Your task to perform on an android device: Empty the shopping cart on amazon. Search for "usb-c to usb-a" on amazon, select the first entry, and add it to the cart. Image 0: 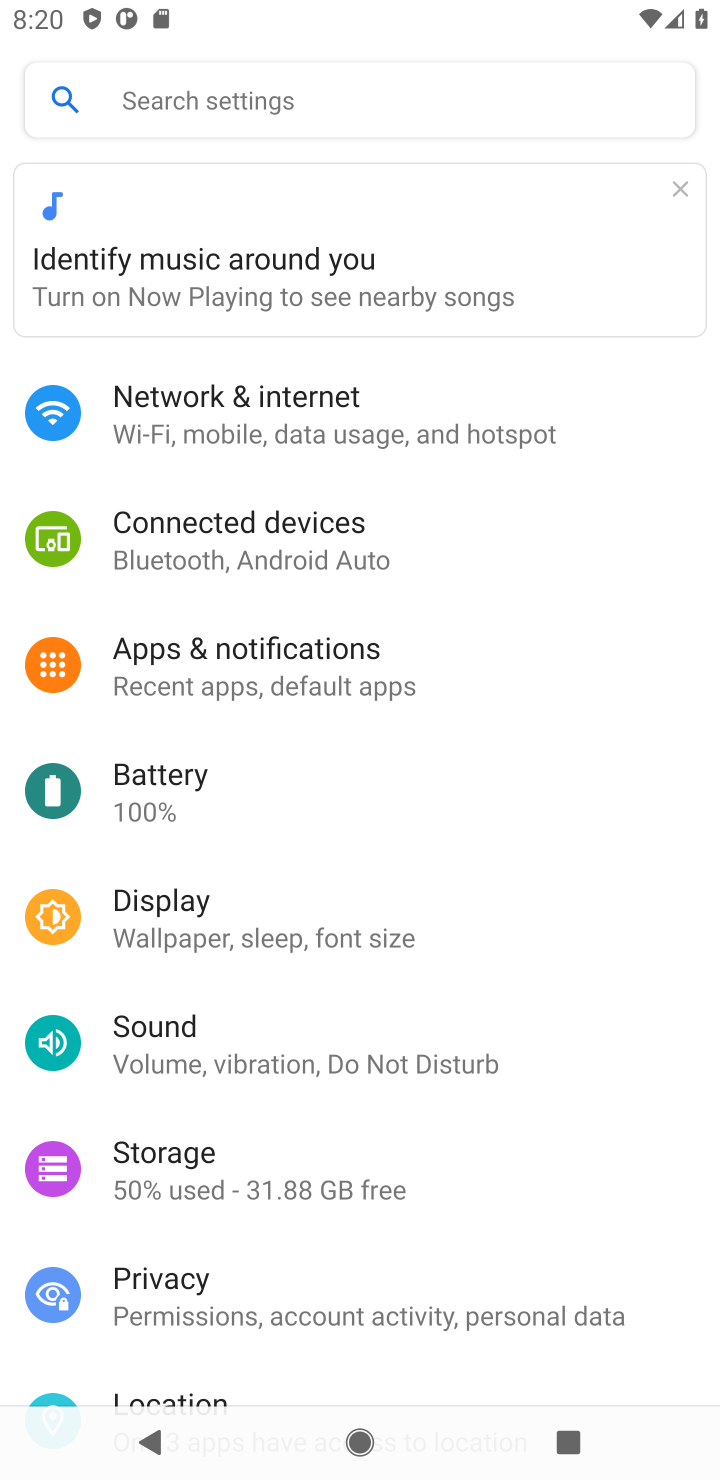
Step 0: press home button
Your task to perform on an android device: Empty the shopping cart on amazon. Search for "usb-c to usb-a" on amazon, select the first entry, and add it to the cart. Image 1: 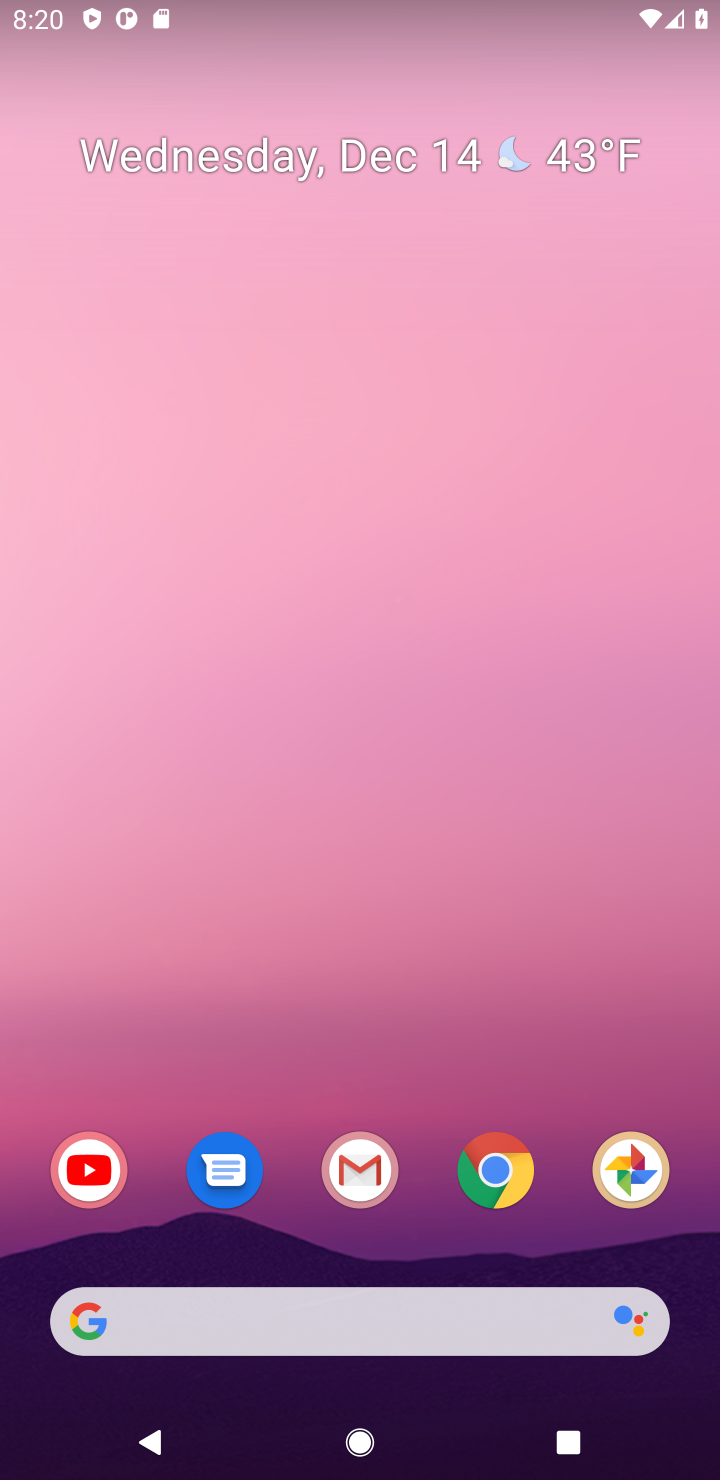
Step 1: click (491, 1178)
Your task to perform on an android device: Empty the shopping cart on amazon. Search for "usb-c to usb-a" on amazon, select the first entry, and add it to the cart. Image 2: 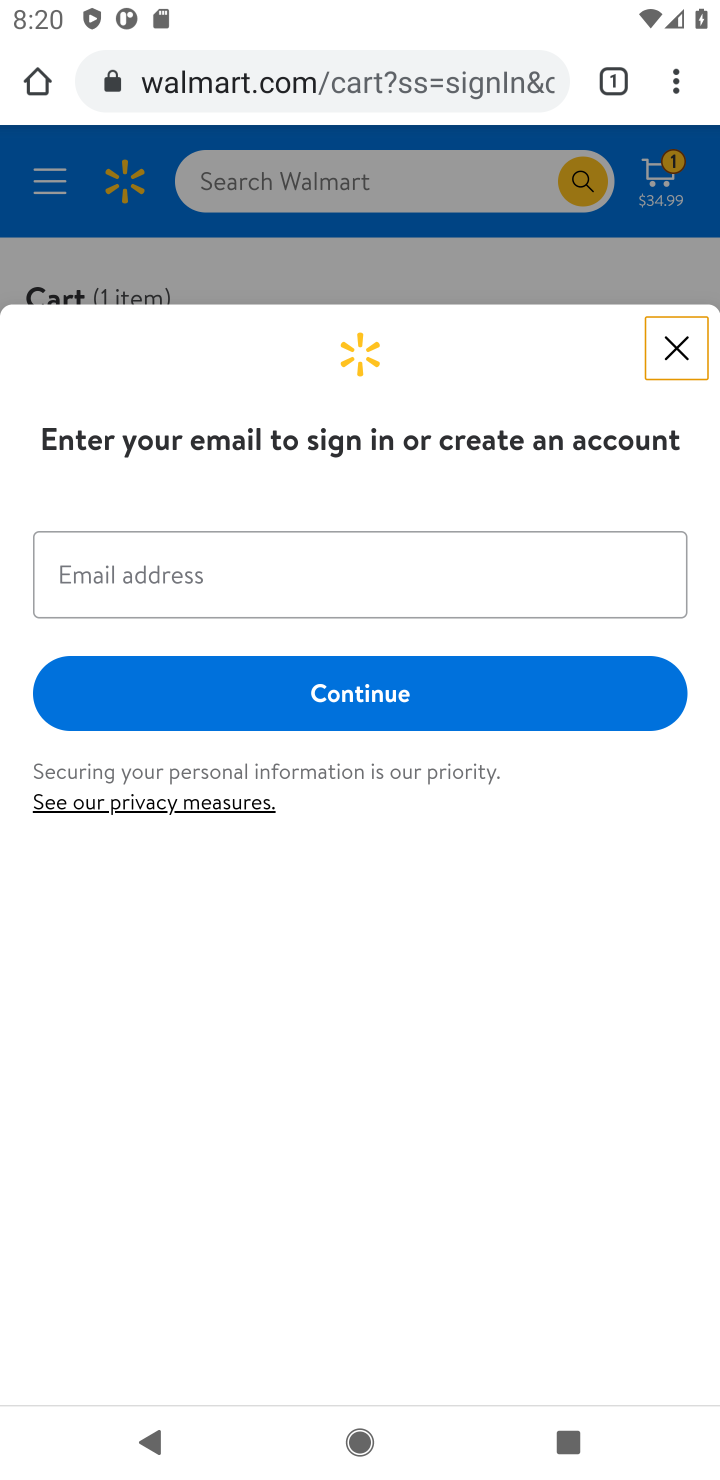
Step 2: click (314, 102)
Your task to perform on an android device: Empty the shopping cart on amazon. Search for "usb-c to usb-a" on amazon, select the first entry, and add it to the cart. Image 3: 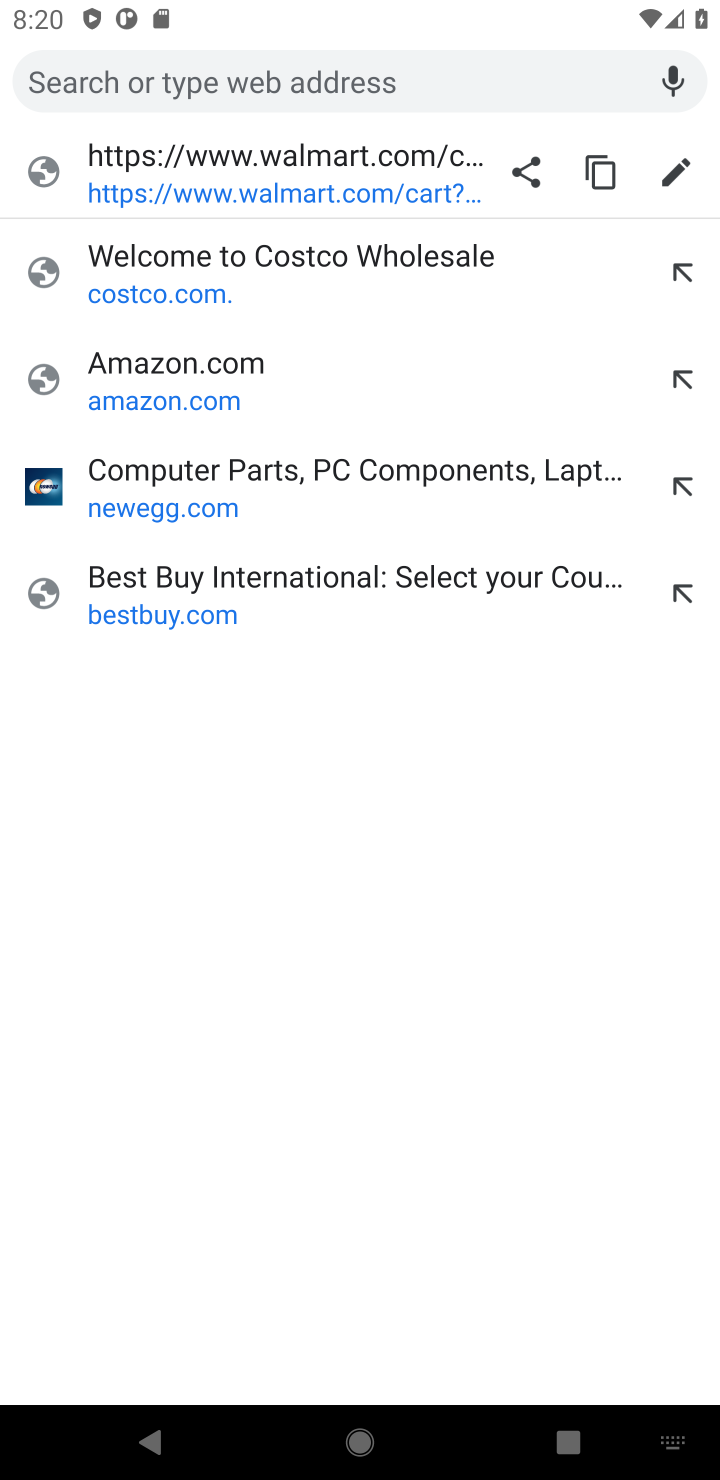
Step 3: click (229, 398)
Your task to perform on an android device: Empty the shopping cart on amazon. Search for "usb-c to usb-a" on amazon, select the first entry, and add it to the cart. Image 4: 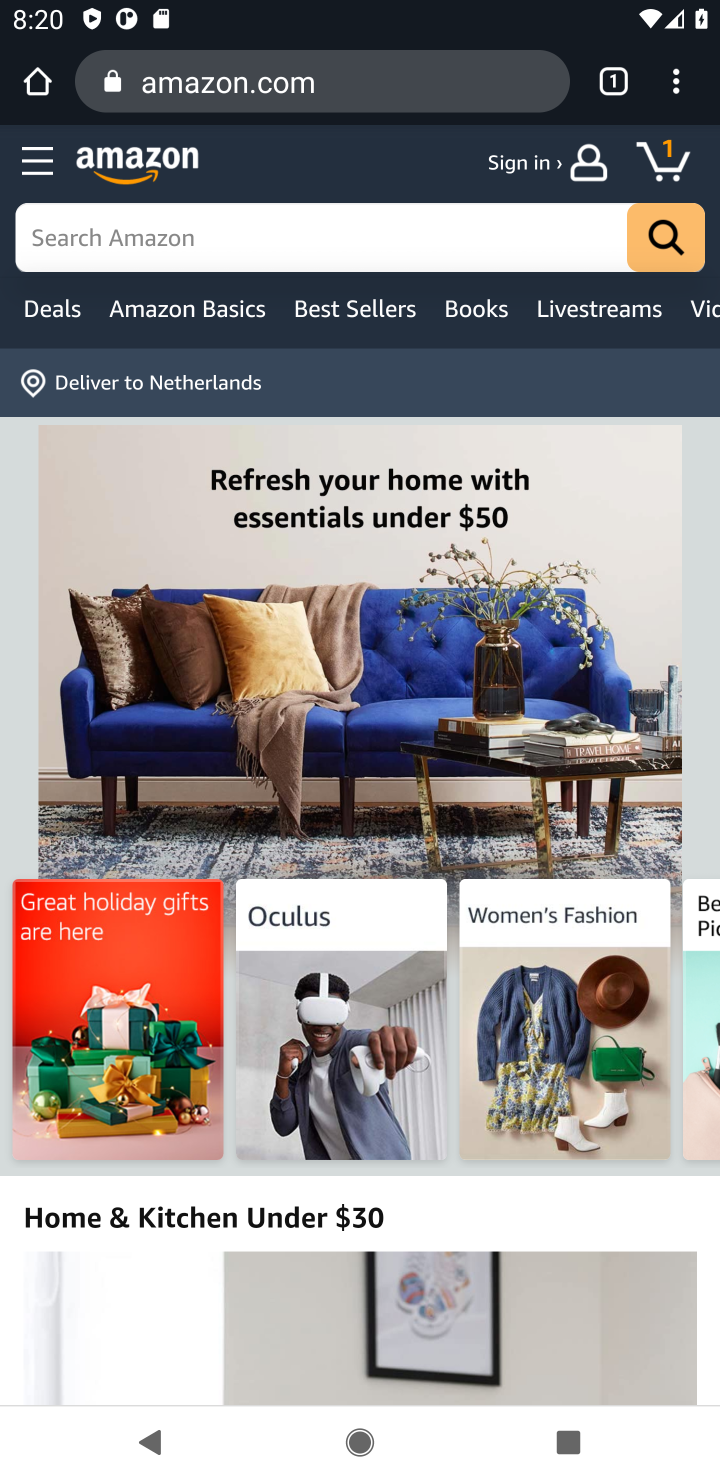
Step 4: click (671, 157)
Your task to perform on an android device: Empty the shopping cart on amazon. Search for "usb-c to usb-a" on amazon, select the first entry, and add it to the cart. Image 5: 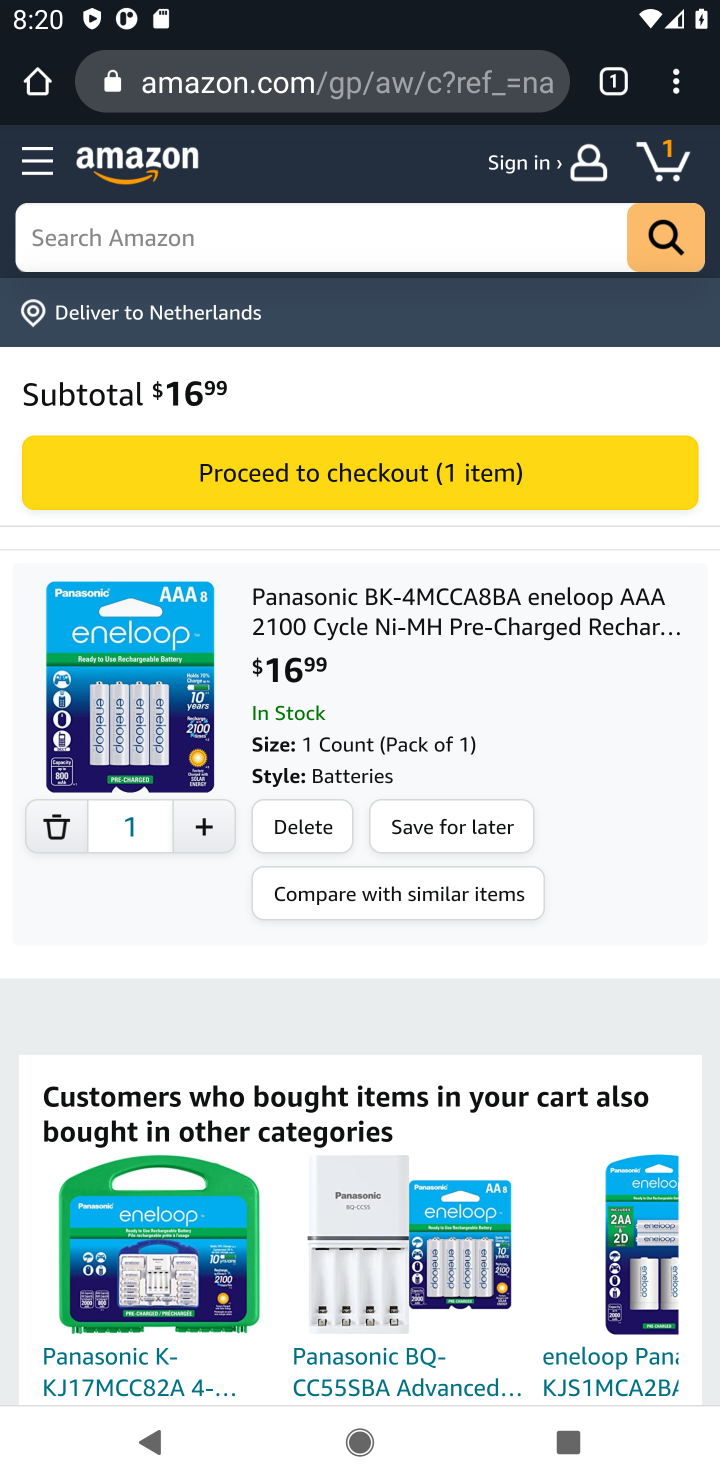
Step 5: click (53, 833)
Your task to perform on an android device: Empty the shopping cart on amazon. Search for "usb-c to usb-a" on amazon, select the first entry, and add it to the cart. Image 6: 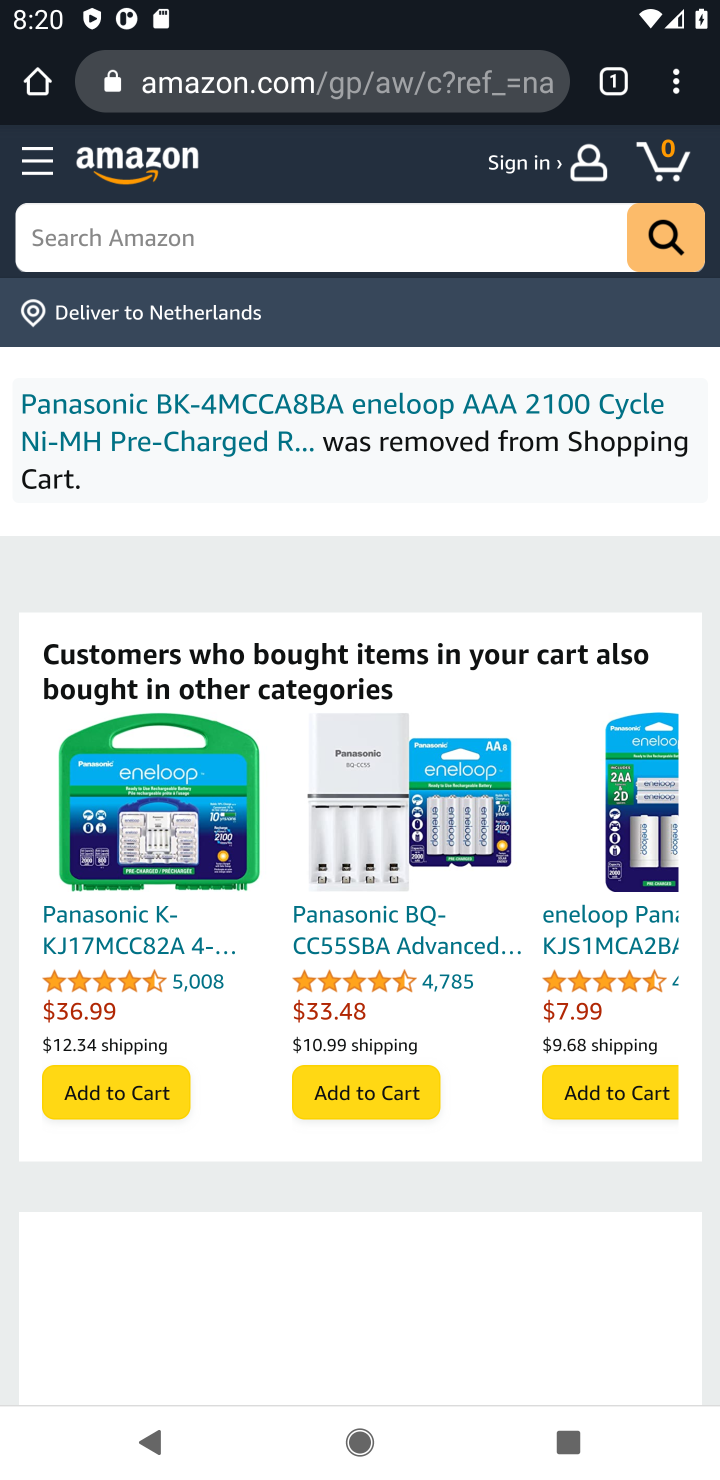
Step 6: click (354, 246)
Your task to perform on an android device: Empty the shopping cart on amazon. Search for "usb-c to usb-a" on amazon, select the first entry, and add it to the cart. Image 7: 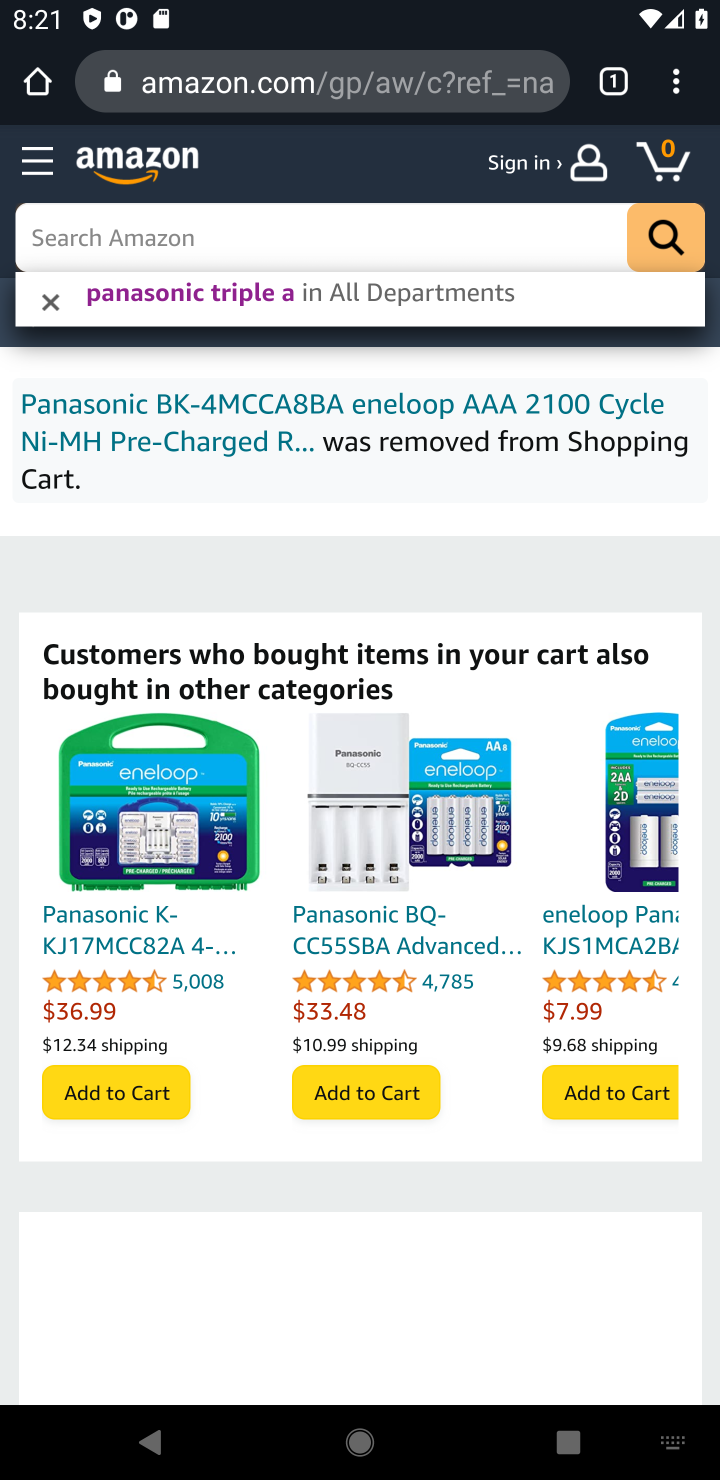
Step 7: type "usb-c to usb-a"
Your task to perform on an android device: Empty the shopping cart on amazon. Search for "usb-c to usb-a" on amazon, select the first entry, and add it to the cart. Image 8: 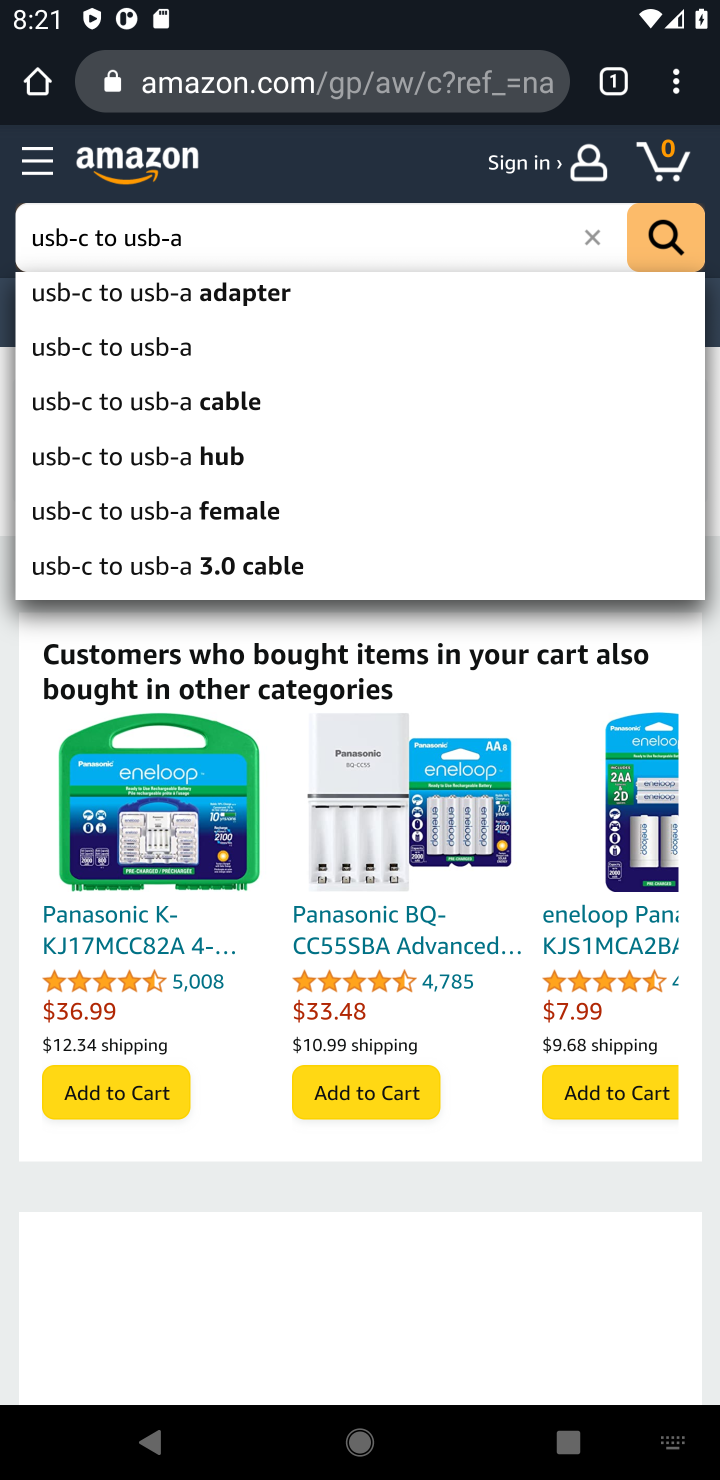
Step 8: click (256, 309)
Your task to perform on an android device: Empty the shopping cart on amazon. Search for "usb-c to usb-a" on amazon, select the first entry, and add it to the cart. Image 9: 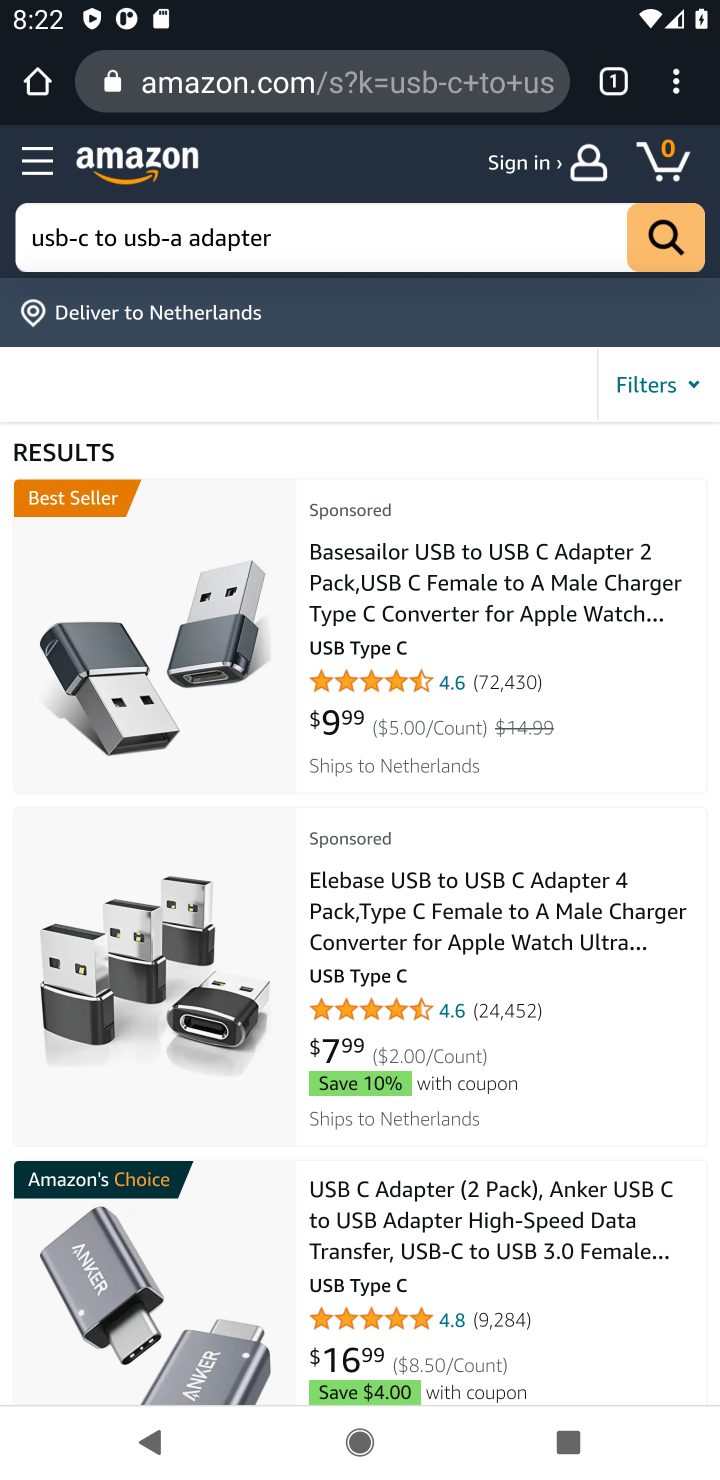
Step 9: click (624, 599)
Your task to perform on an android device: Empty the shopping cart on amazon. Search for "usb-c to usb-a" on amazon, select the first entry, and add it to the cart. Image 10: 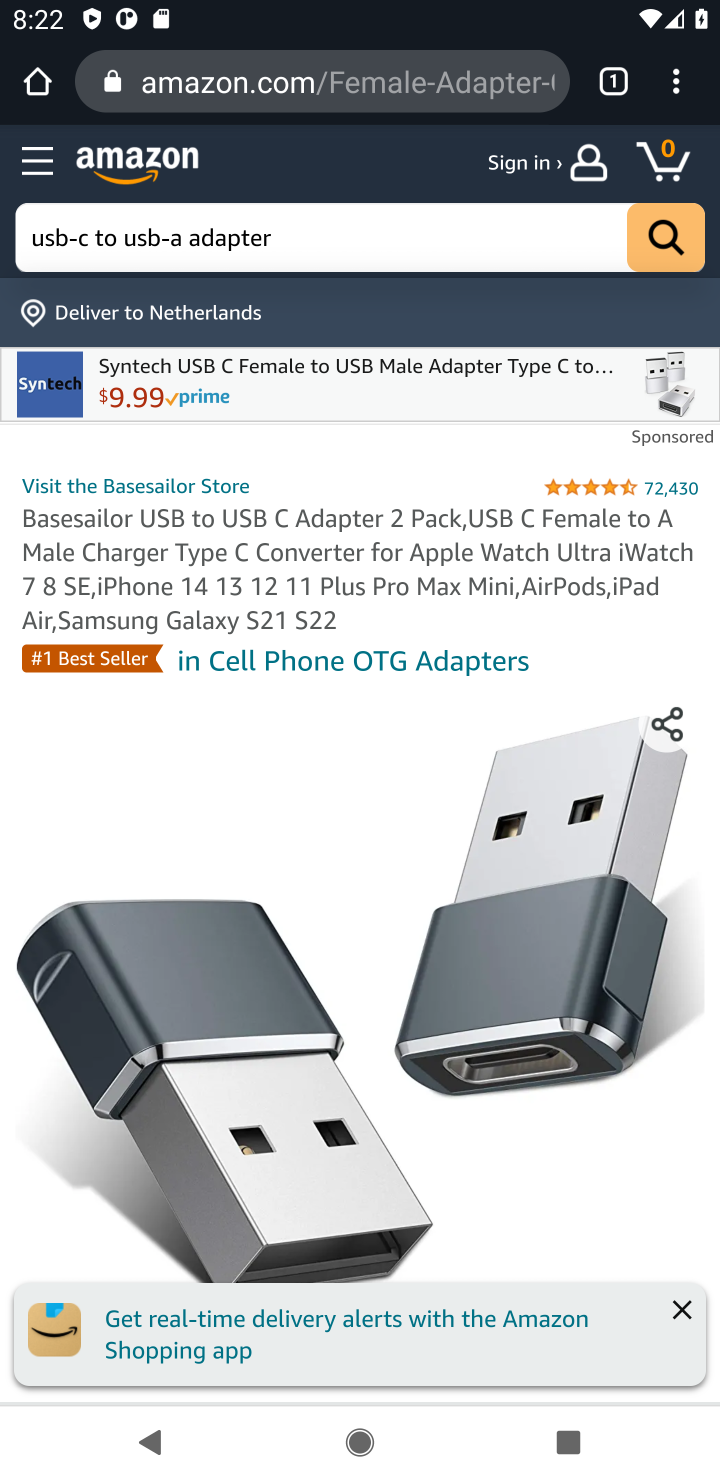
Step 10: drag from (490, 1238) to (475, 423)
Your task to perform on an android device: Empty the shopping cart on amazon. Search for "usb-c to usb-a" on amazon, select the first entry, and add it to the cart. Image 11: 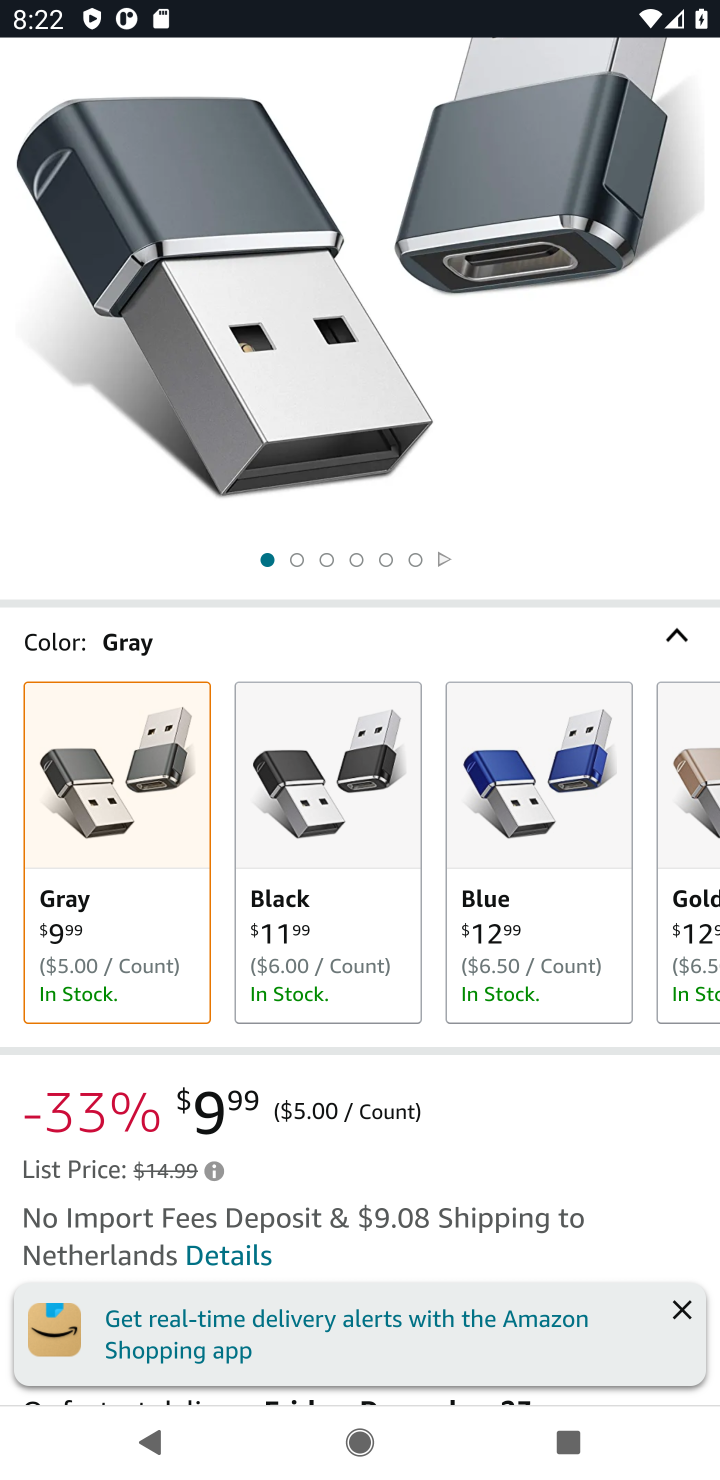
Step 11: drag from (479, 1141) to (514, 253)
Your task to perform on an android device: Empty the shopping cart on amazon. Search for "usb-c to usb-a" on amazon, select the first entry, and add it to the cart. Image 12: 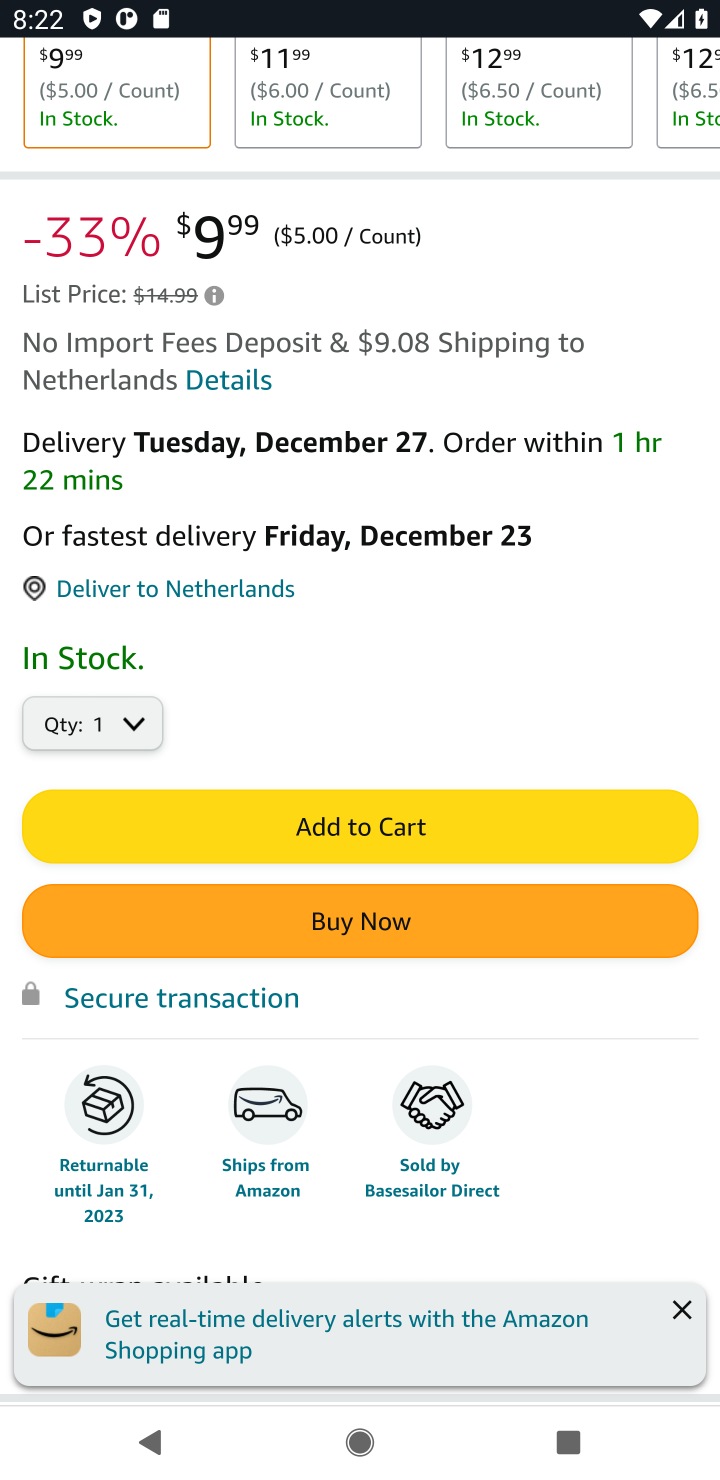
Step 12: click (390, 820)
Your task to perform on an android device: Empty the shopping cart on amazon. Search for "usb-c to usb-a" on amazon, select the first entry, and add it to the cart. Image 13: 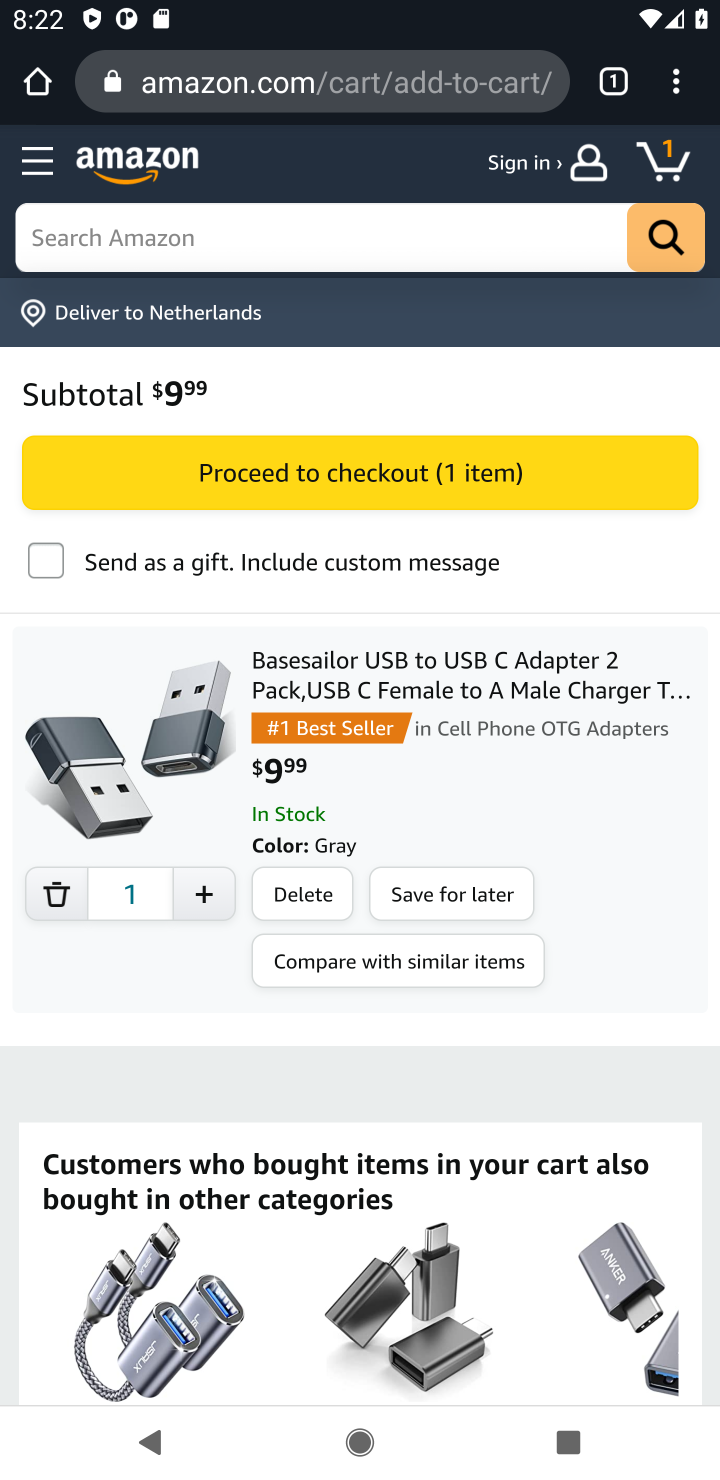
Step 13: click (394, 473)
Your task to perform on an android device: Empty the shopping cart on amazon. Search for "usb-c to usb-a" on amazon, select the first entry, and add it to the cart. Image 14: 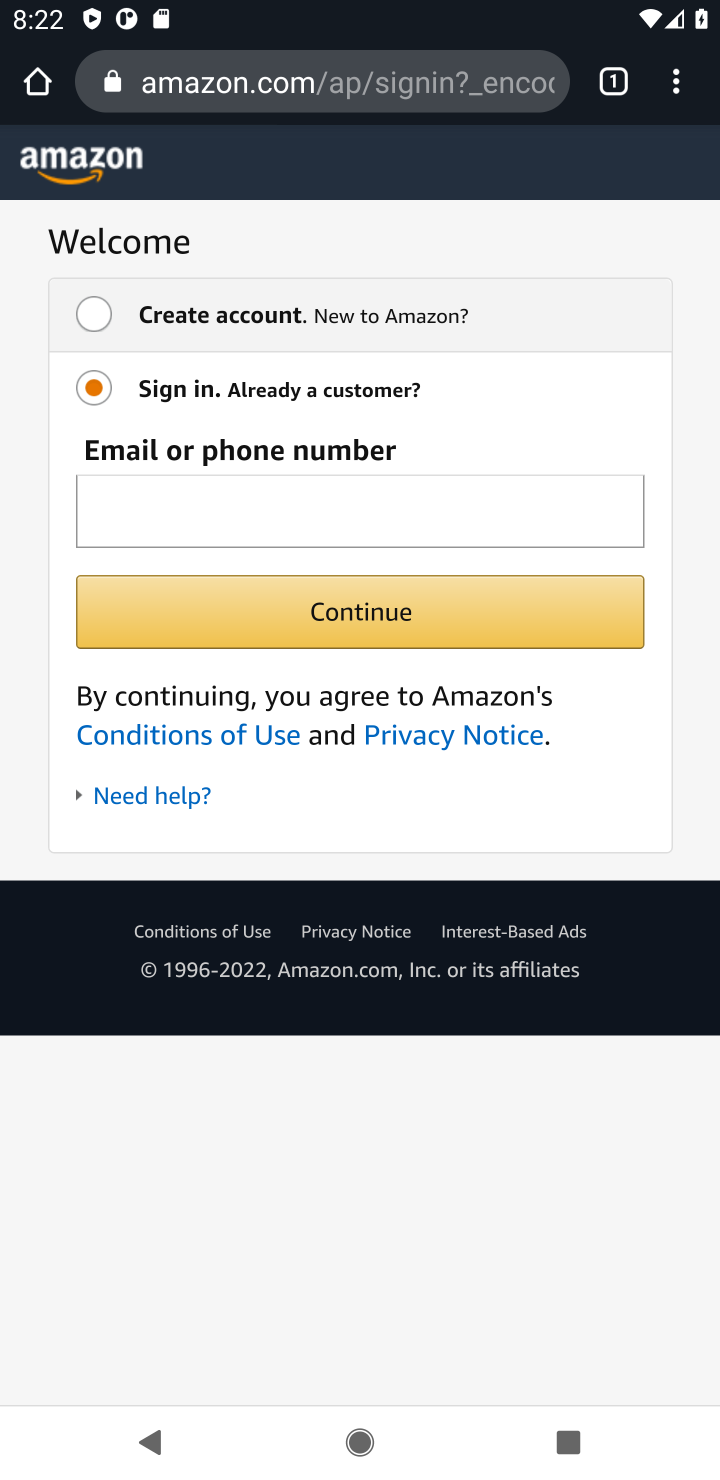
Step 14: task complete